Your task to perform on an android device: Open Chrome and go to settings Image 0: 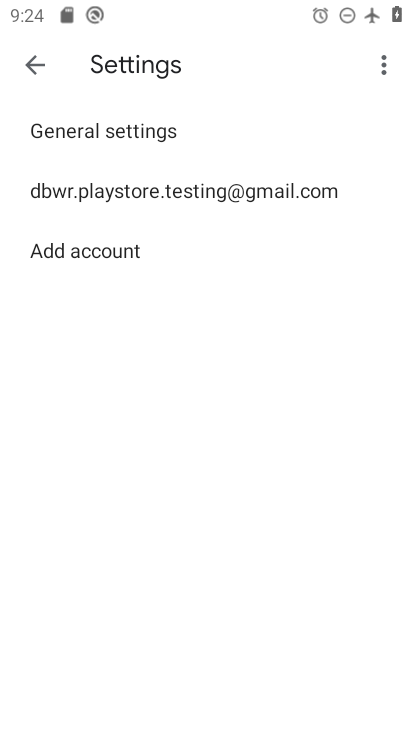
Step 0: press home button
Your task to perform on an android device: Open Chrome and go to settings Image 1: 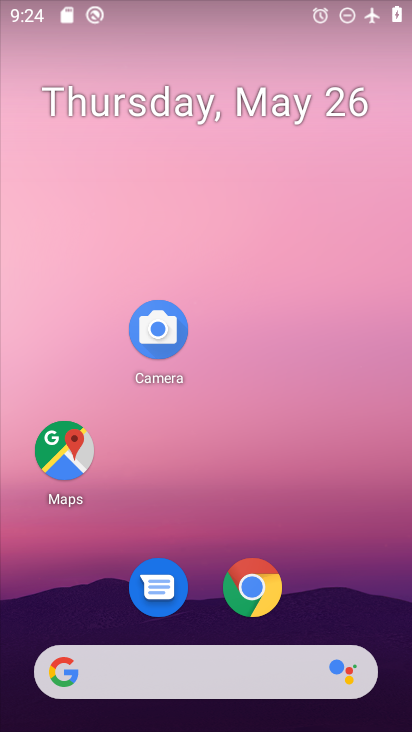
Step 1: click (258, 596)
Your task to perform on an android device: Open Chrome and go to settings Image 2: 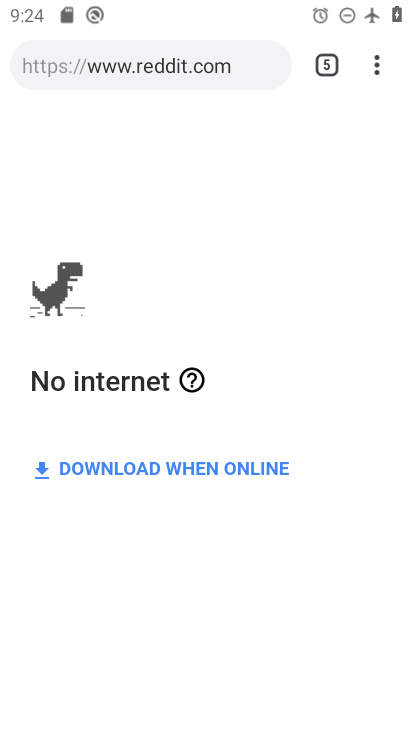
Step 2: task complete